Your task to perform on an android device: Go to Reddit.com Image 0: 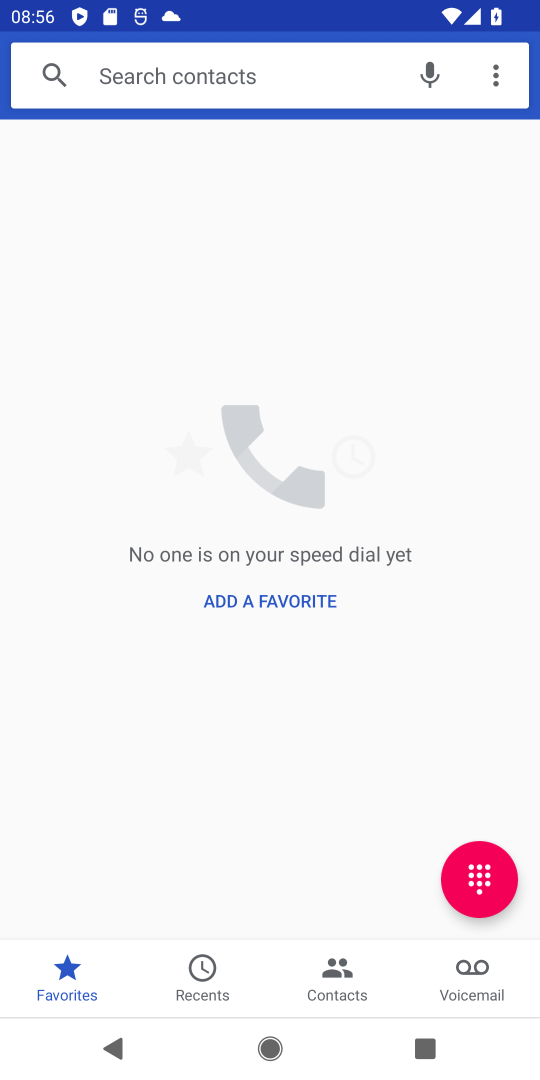
Step 0: press home button
Your task to perform on an android device: Go to Reddit.com Image 1: 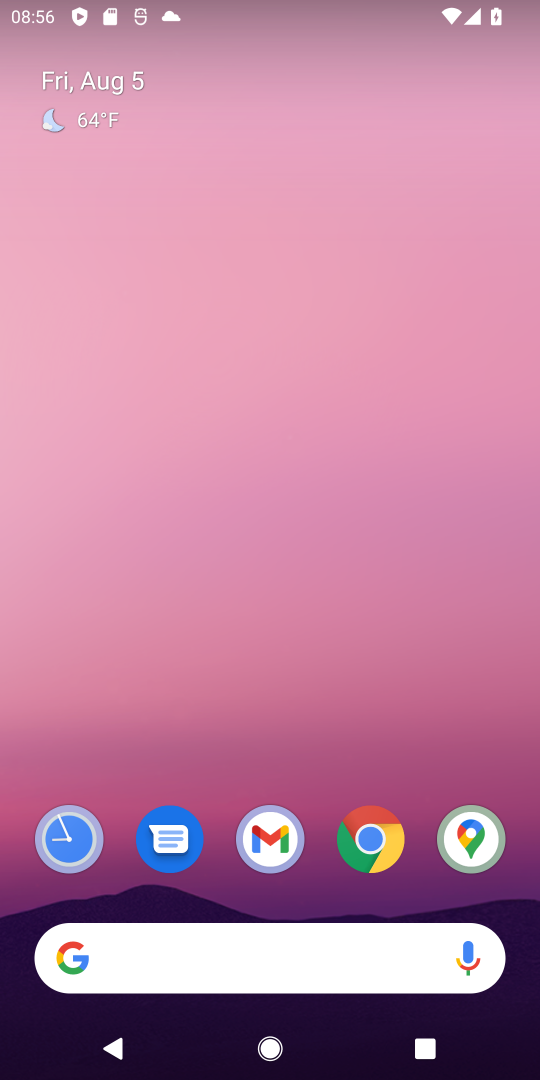
Step 1: click (376, 838)
Your task to perform on an android device: Go to Reddit.com Image 2: 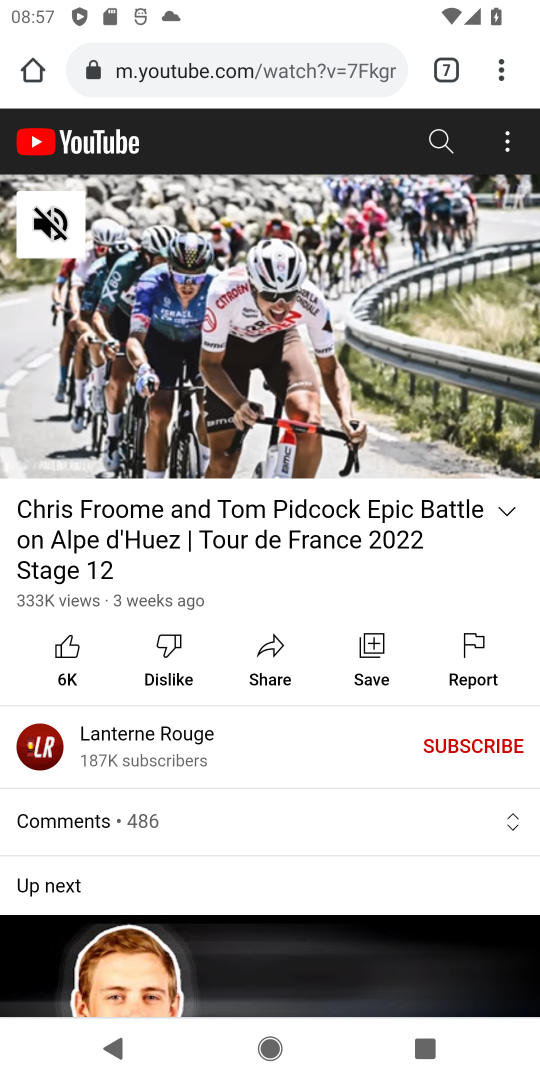
Step 2: click (499, 83)
Your task to perform on an android device: Go to Reddit.com Image 3: 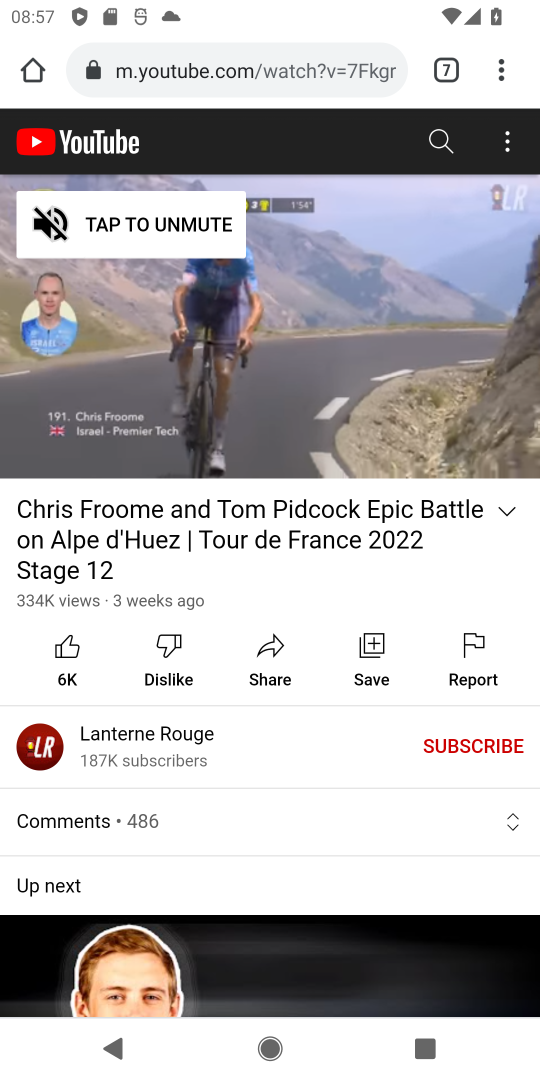
Step 3: drag from (497, 72) to (337, 231)
Your task to perform on an android device: Go to Reddit.com Image 4: 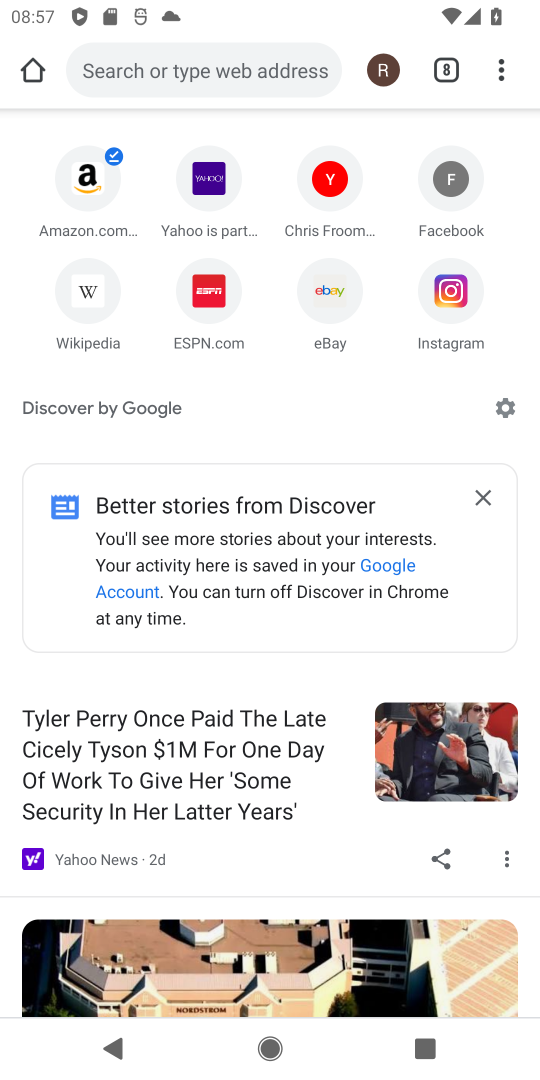
Step 4: click (249, 74)
Your task to perform on an android device: Go to Reddit.com Image 5: 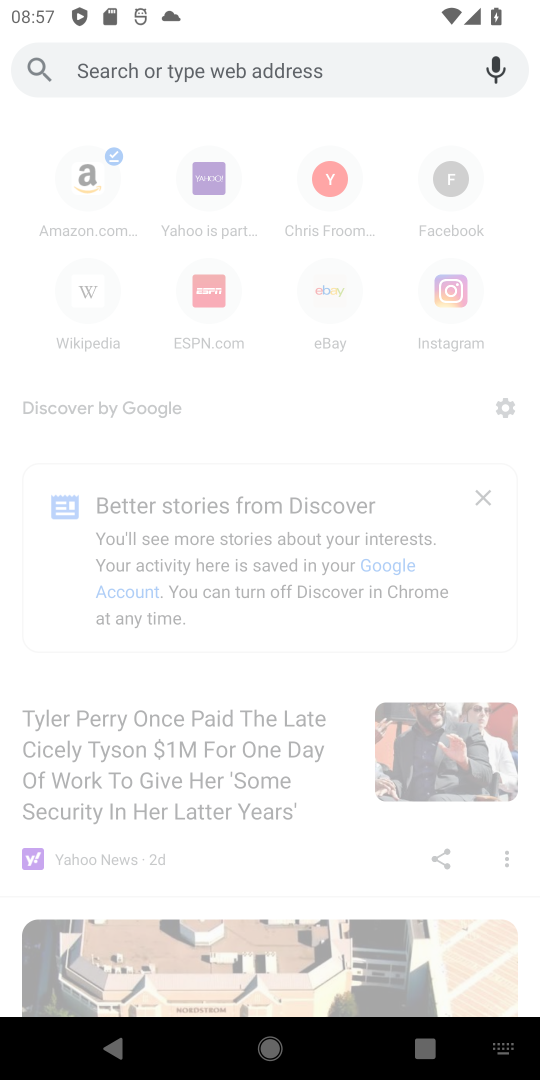
Step 5: type "Ressit.com"
Your task to perform on an android device: Go to Reddit.com Image 6: 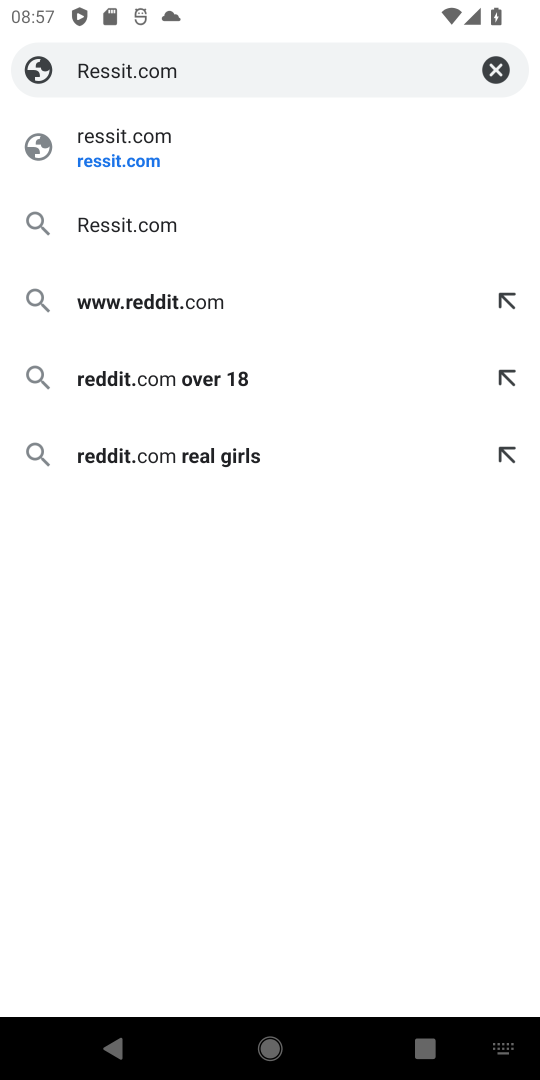
Step 6: click (145, 142)
Your task to perform on an android device: Go to Reddit.com Image 7: 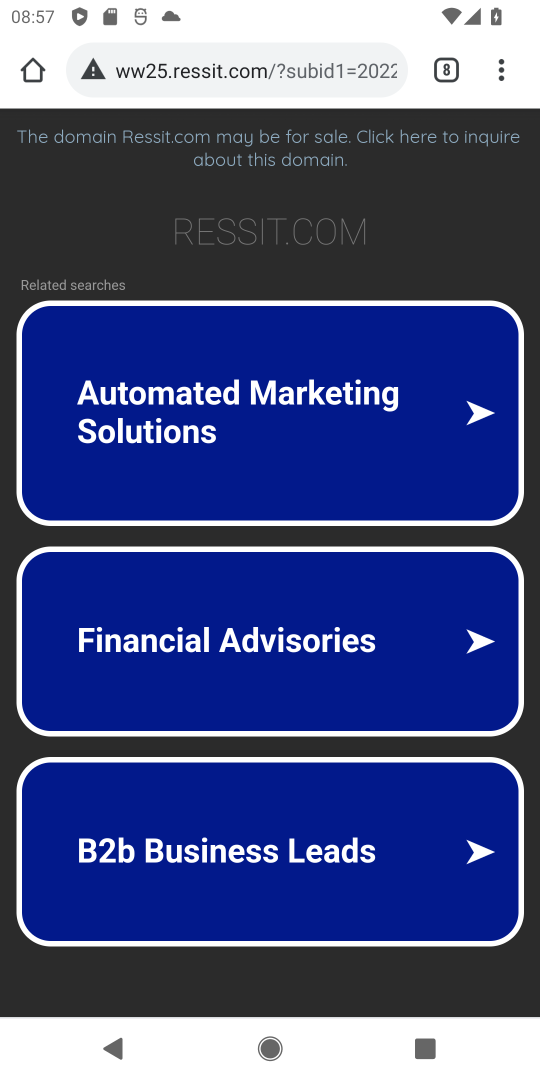
Step 7: click (503, 79)
Your task to perform on an android device: Go to Reddit.com Image 8: 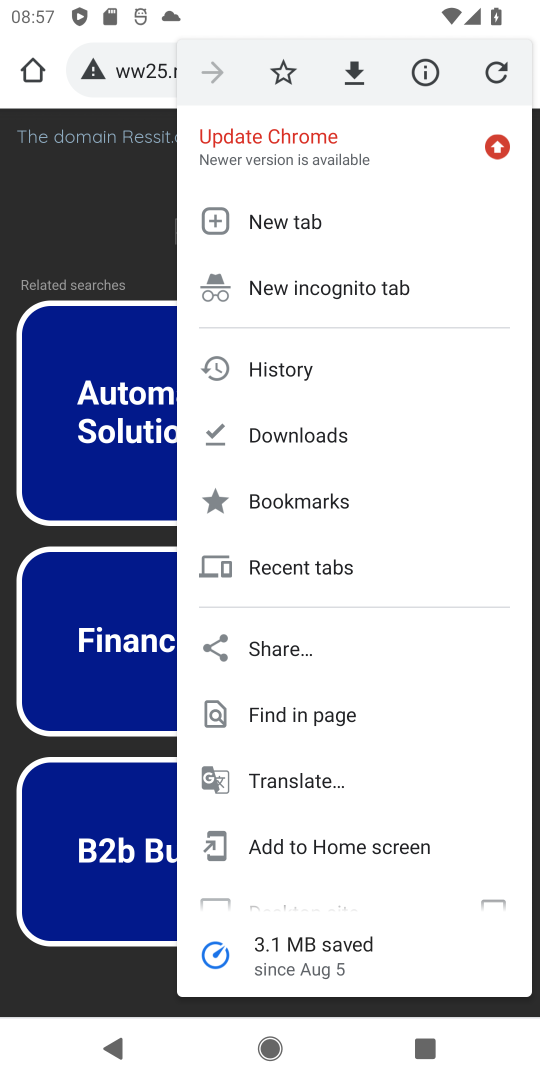
Step 8: click (267, 222)
Your task to perform on an android device: Go to Reddit.com Image 9: 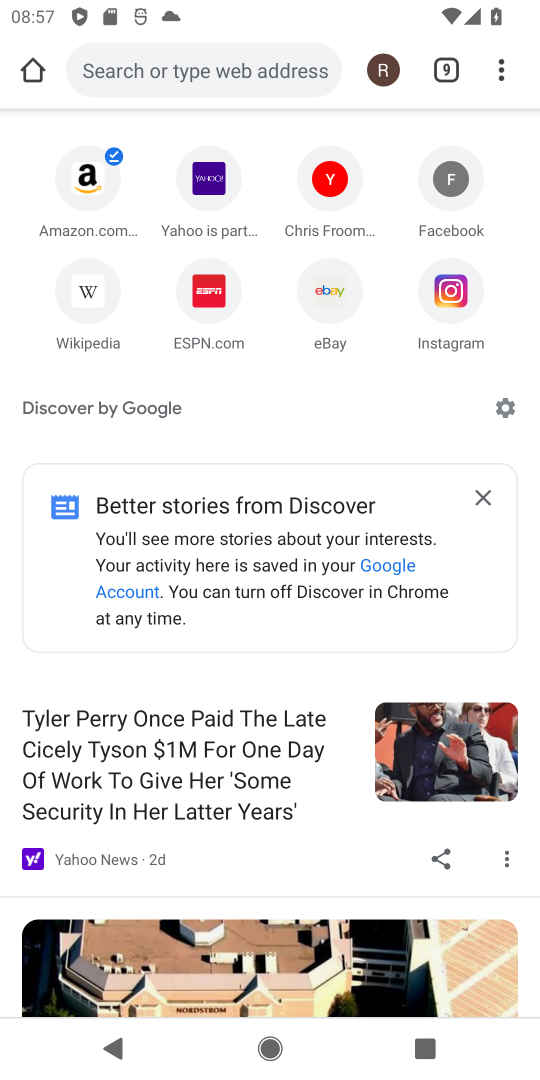
Step 9: click (240, 80)
Your task to perform on an android device: Go to Reddit.com Image 10: 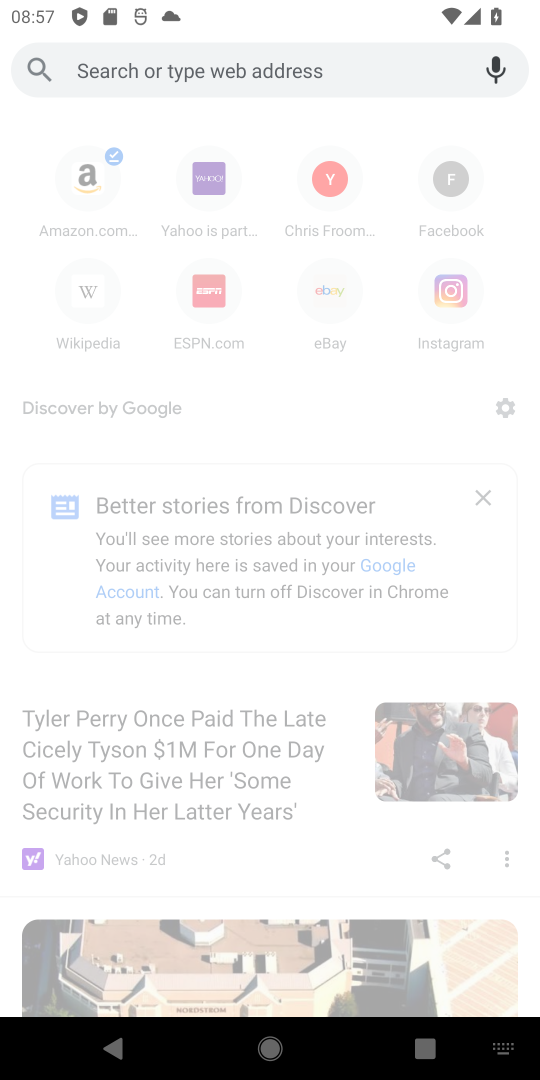
Step 10: type "Reddit.com"
Your task to perform on an android device: Go to Reddit.com Image 11: 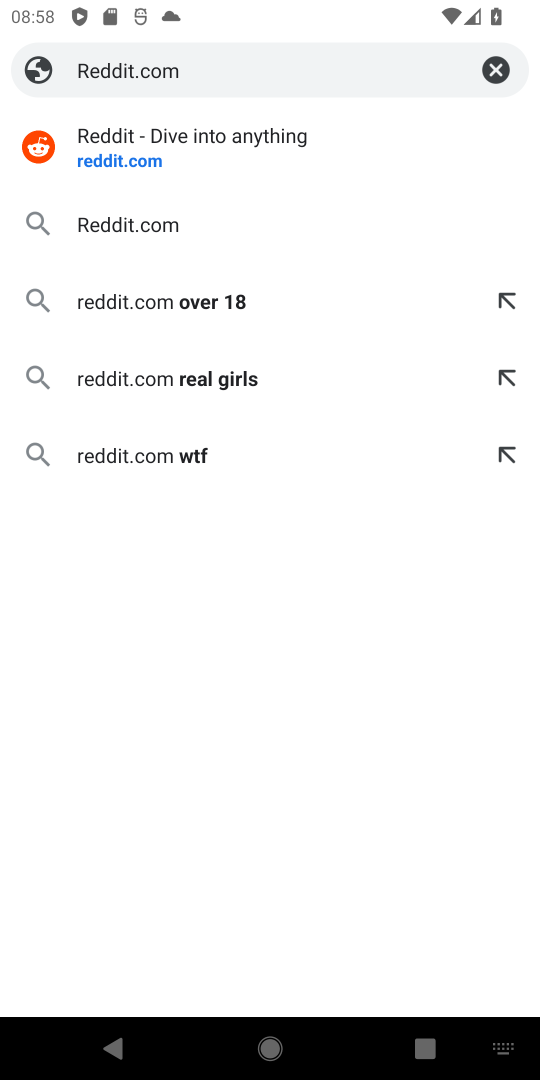
Step 11: click (167, 139)
Your task to perform on an android device: Go to Reddit.com Image 12: 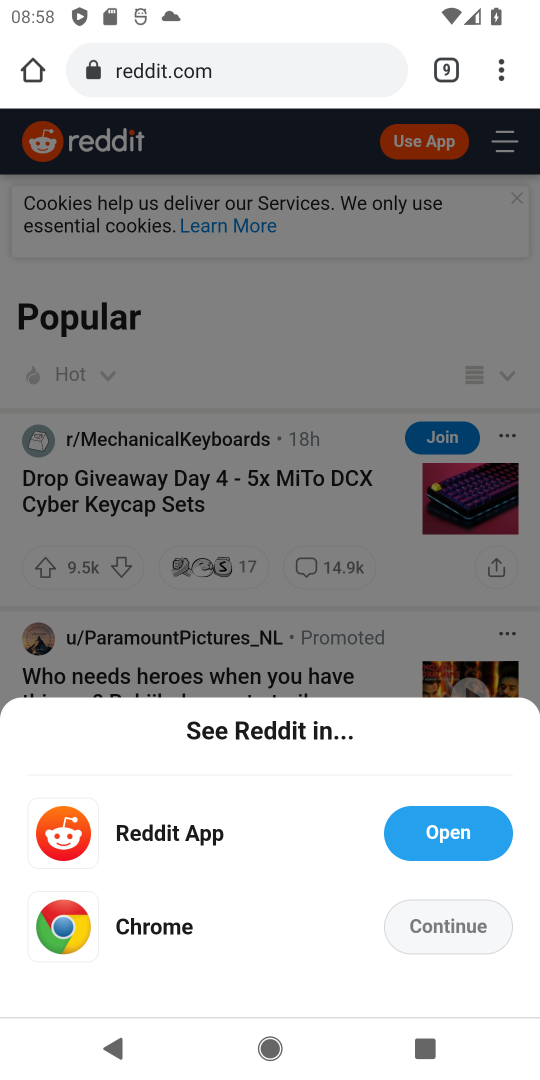
Step 12: task complete